Your task to perform on an android device: toggle javascript in the chrome app Image 0: 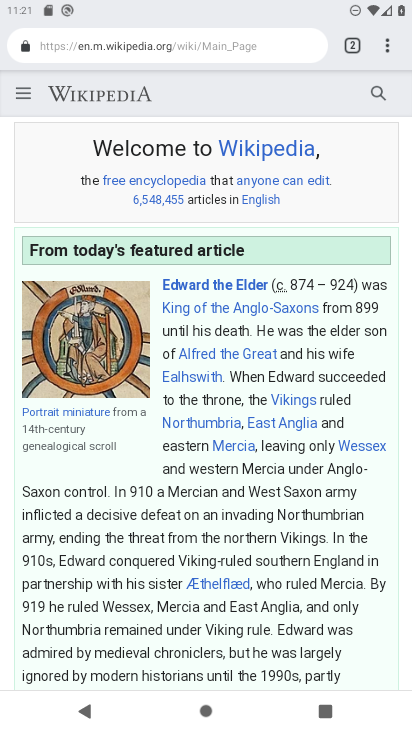
Step 0: click (390, 46)
Your task to perform on an android device: toggle javascript in the chrome app Image 1: 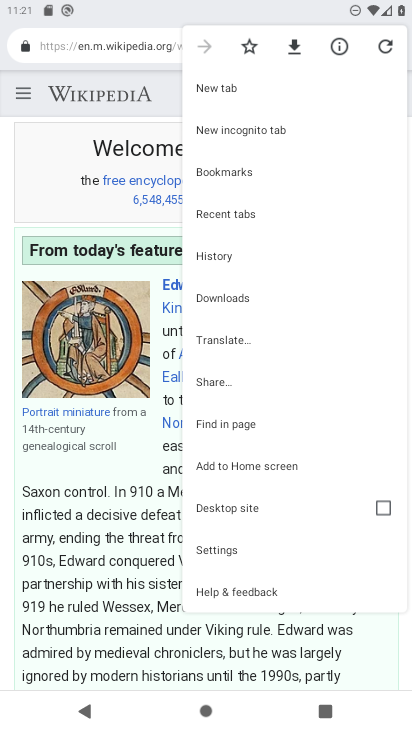
Step 1: click (268, 556)
Your task to perform on an android device: toggle javascript in the chrome app Image 2: 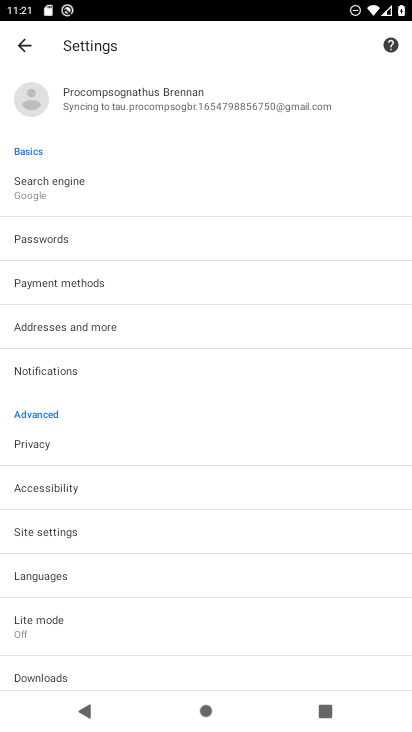
Step 2: click (122, 531)
Your task to perform on an android device: toggle javascript in the chrome app Image 3: 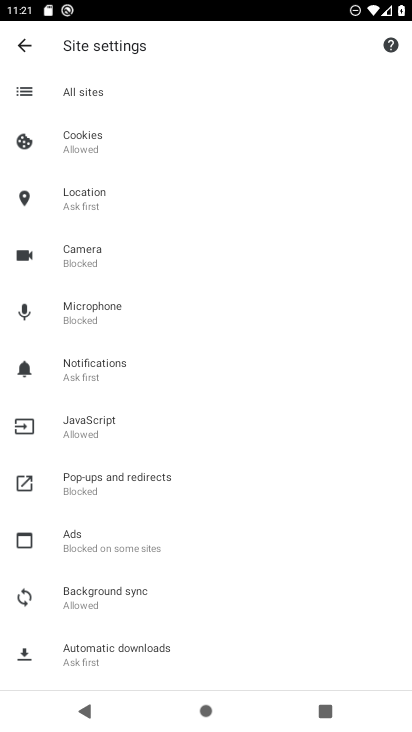
Step 3: click (142, 431)
Your task to perform on an android device: toggle javascript in the chrome app Image 4: 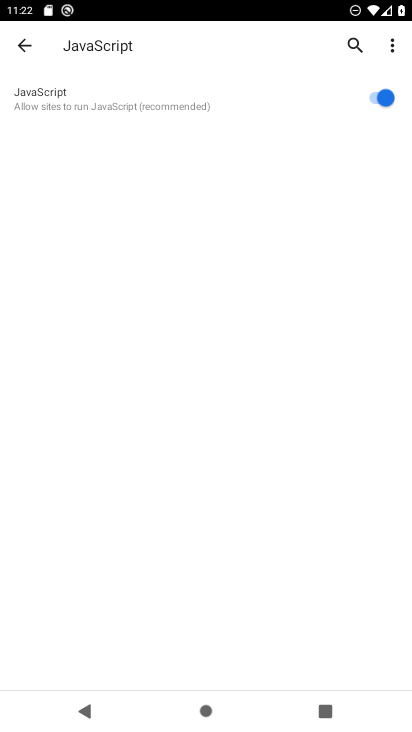
Step 4: click (379, 99)
Your task to perform on an android device: toggle javascript in the chrome app Image 5: 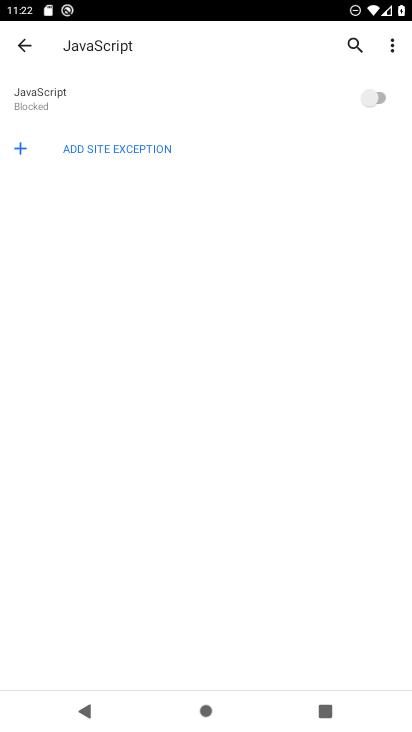
Step 5: task complete